Your task to perform on an android device: change notification settings in the gmail app Image 0: 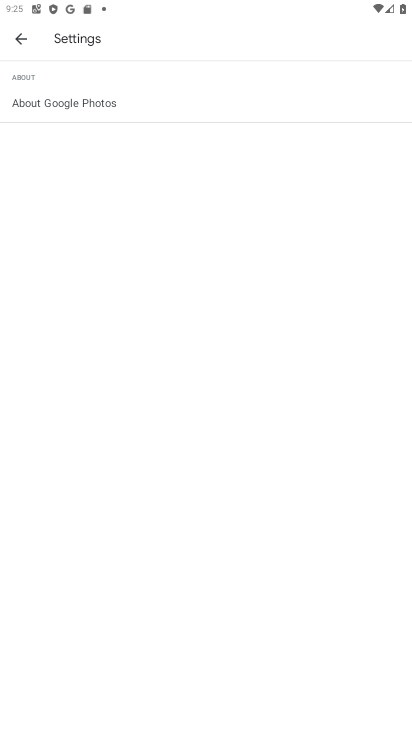
Step 0: press home button
Your task to perform on an android device: change notification settings in the gmail app Image 1: 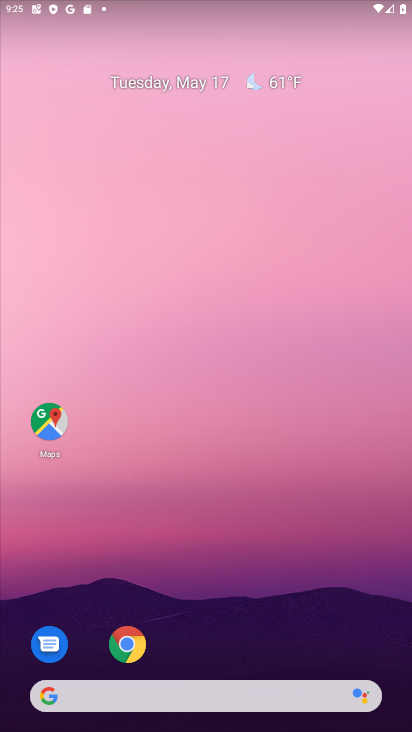
Step 1: drag from (221, 651) to (314, 85)
Your task to perform on an android device: change notification settings in the gmail app Image 2: 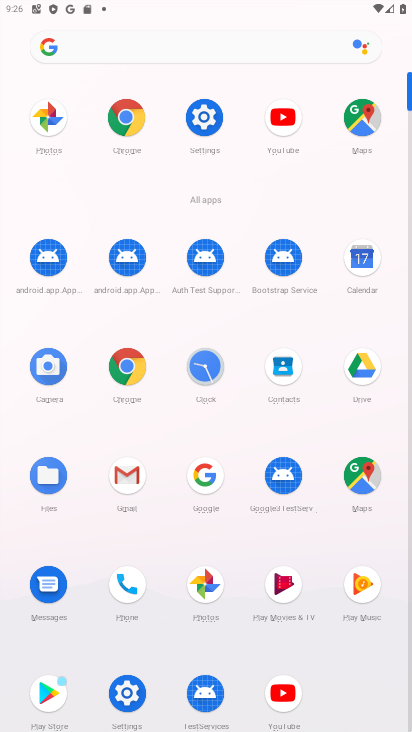
Step 2: click (201, 116)
Your task to perform on an android device: change notification settings in the gmail app Image 3: 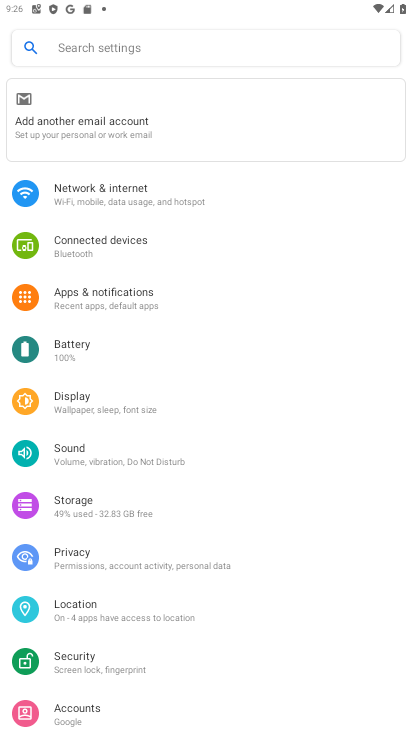
Step 3: click (122, 292)
Your task to perform on an android device: change notification settings in the gmail app Image 4: 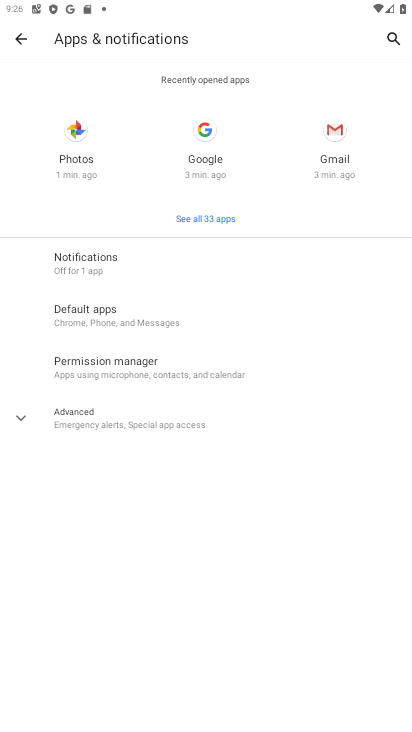
Step 4: click (331, 115)
Your task to perform on an android device: change notification settings in the gmail app Image 5: 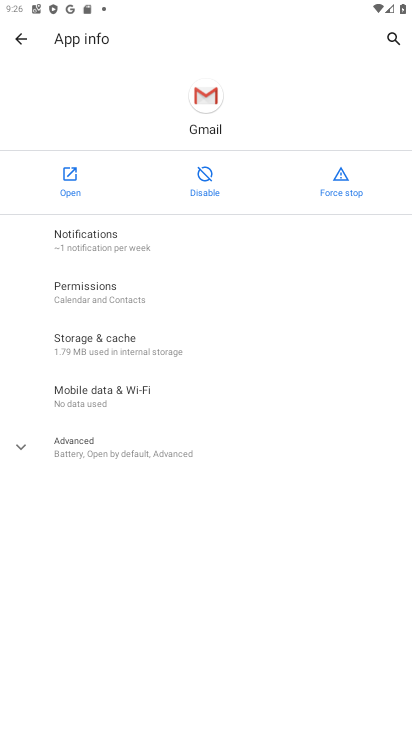
Step 5: click (76, 247)
Your task to perform on an android device: change notification settings in the gmail app Image 6: 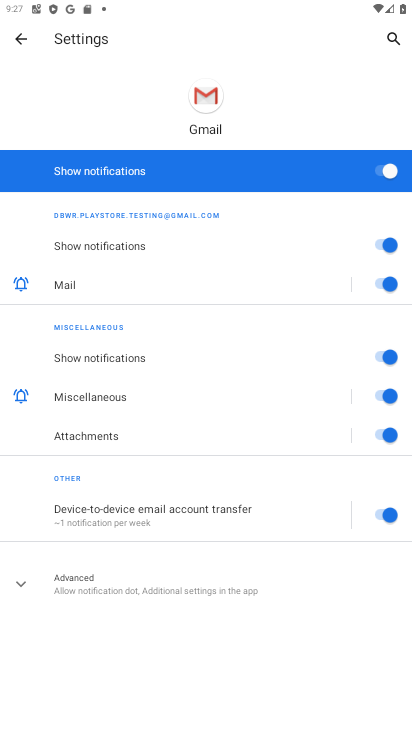
Step 6: click (393, 358)
Your task to perform on an android device: change notification settings in the gmail app Image 7: 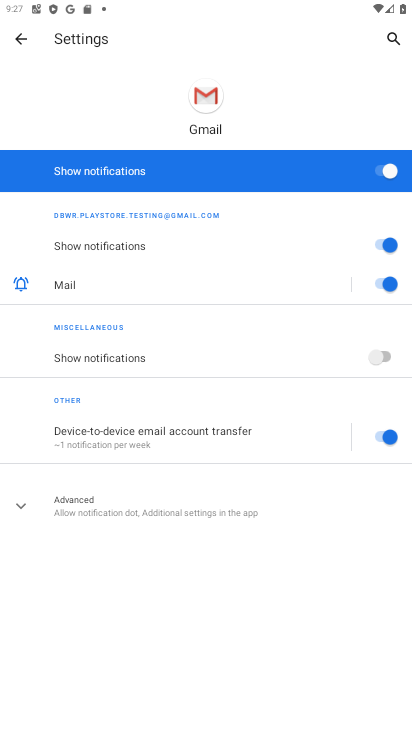
Step 7: click (391, 385)
Your task to perform on an android device: change notification settings in the gmail app Image 8: 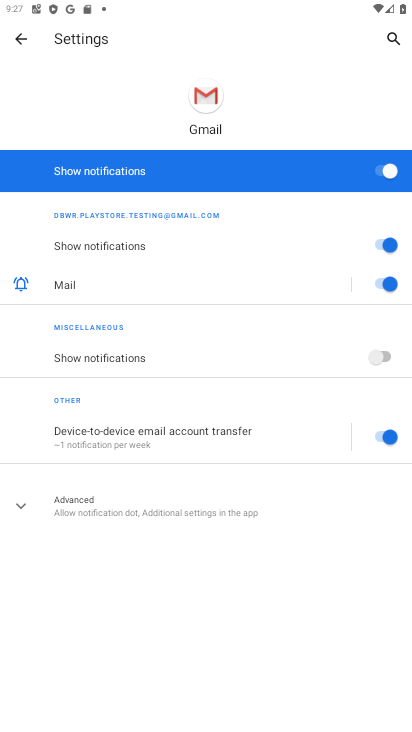
Step 8: click (393, 439)
Your task to perform on an android device: change notification settings in the gmail app Image 9: 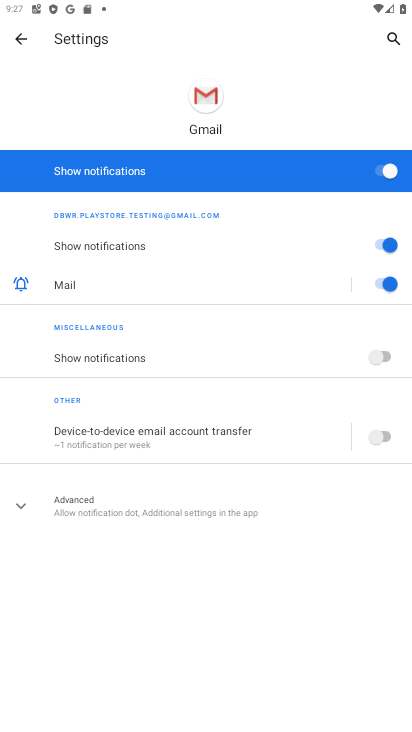
Step 9: task complete